Your task to perform on an android device: Open sound settings Image 0: 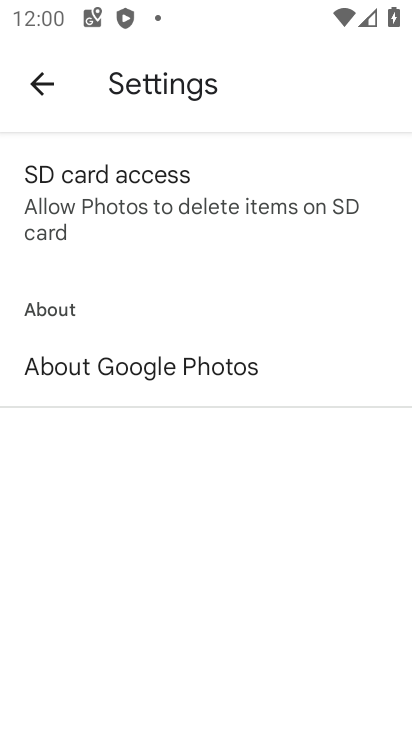
Step 0: press home button
Your task to perform on an android device: Open sound settings Image 1: 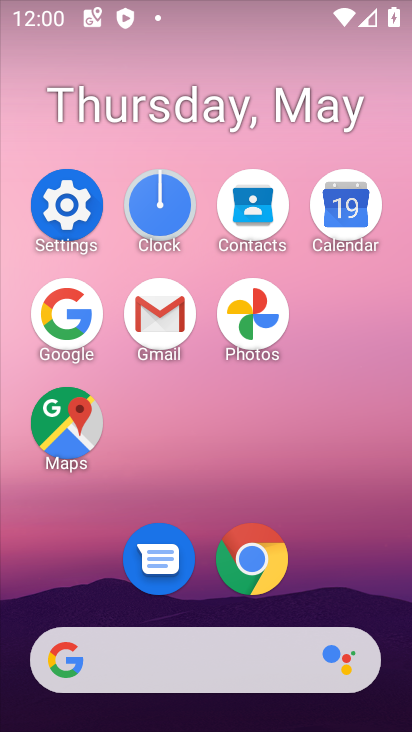
Step 1: click (71, 216)
Your task to perform on an android device: Open sound settings Image 2: 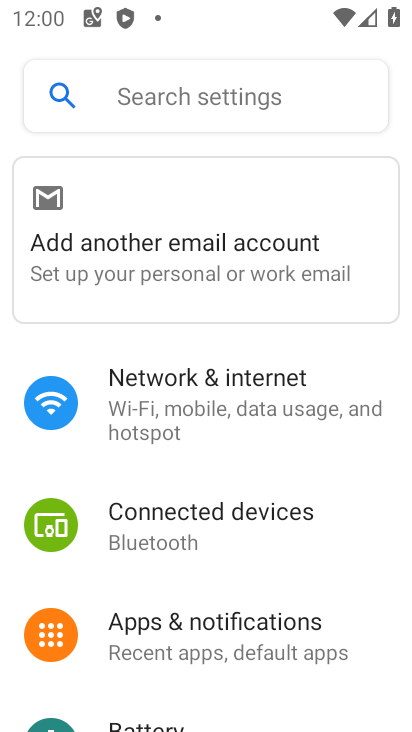
Step 2: drag from (233, 588) to (255, 230)
Your task to perform on an android device: Open sound settings Image 3: 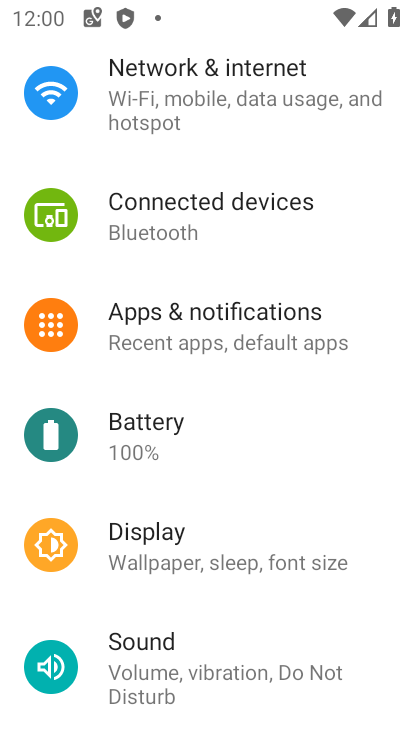
Step 3: click (193, 658)
Your task to perform on an android device: Open sound settings Image 4: 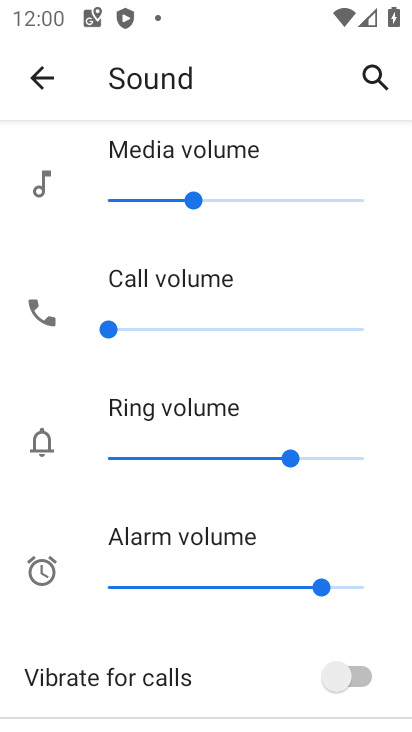
Step 4: task complete